Your task to perform on an android device: Open internet settings Image 0: 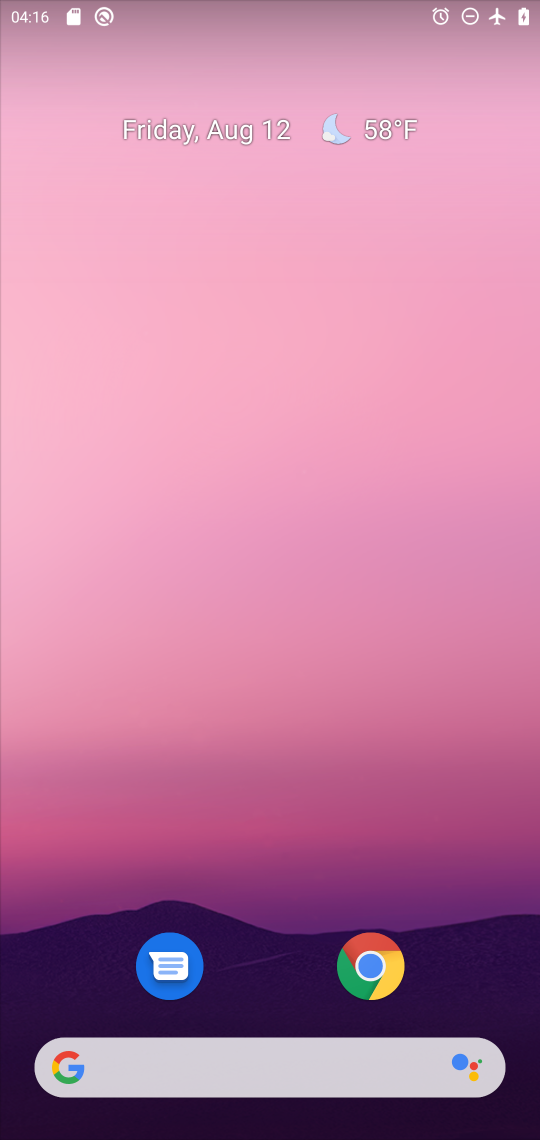
Step 0: drag from (289, 849) to (313, 95)
Your task to perform on an android device: Open internet settings Image 1: 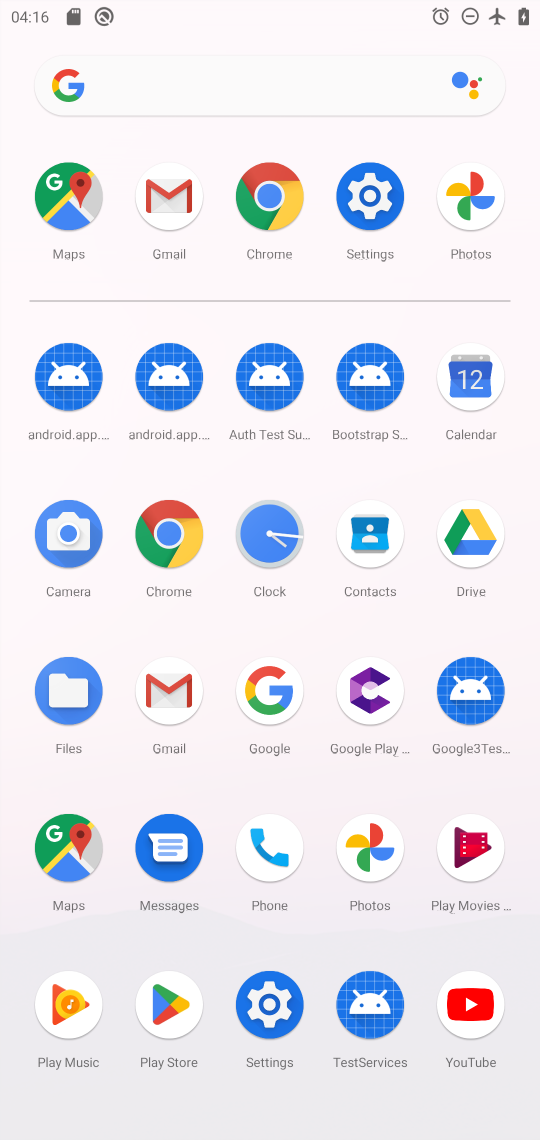
Step 1: click (274, 987)
Your task to perform on an android device: Open internet settings Image 2: 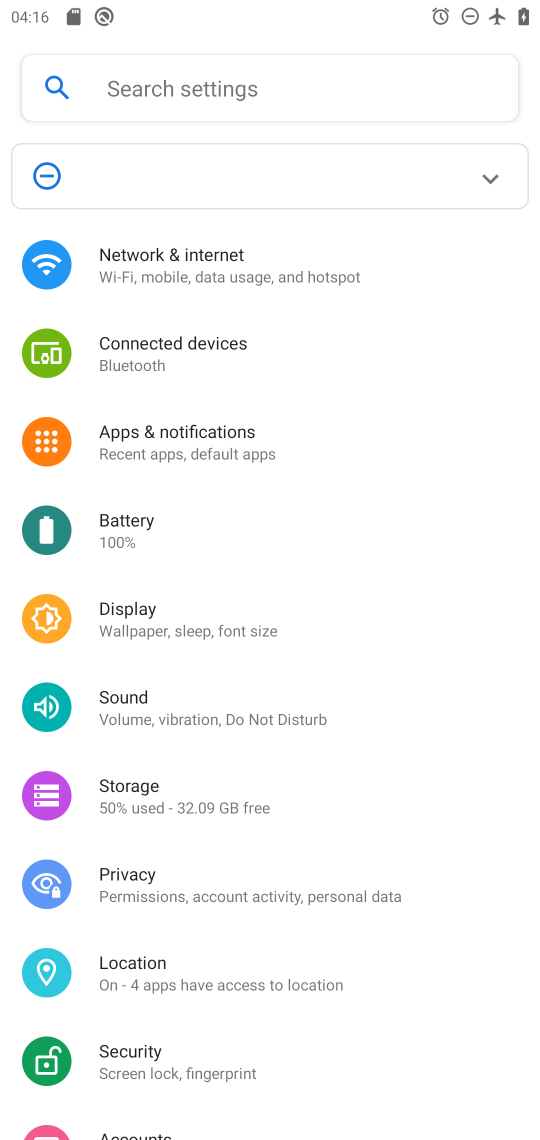
Step 2: click (182, 261)
Your task to perform on an android device: Open internet settings Image 3: 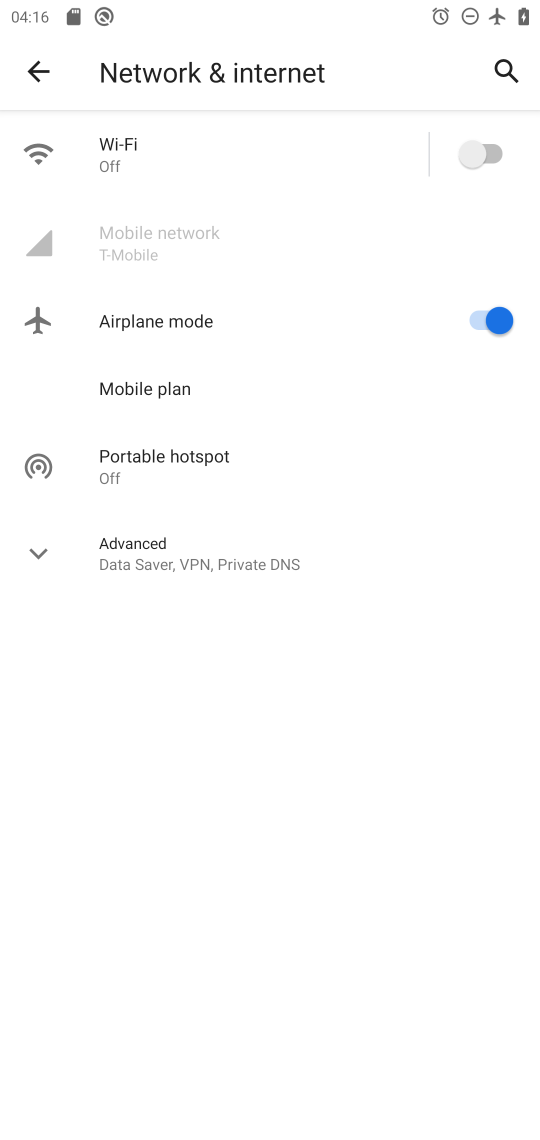
Step 3: click (167, 538)
Your task to perform on an android device: Open internet settings Image 4: 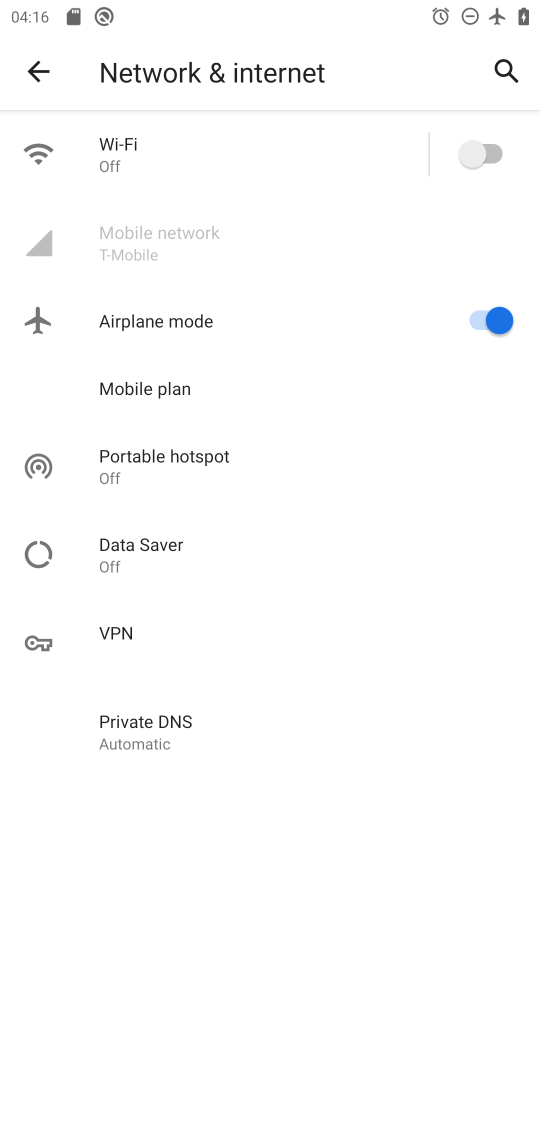
Step 4: task complete